Your task to perform on an android device: choose inbox layout in the gmail app Image 0: 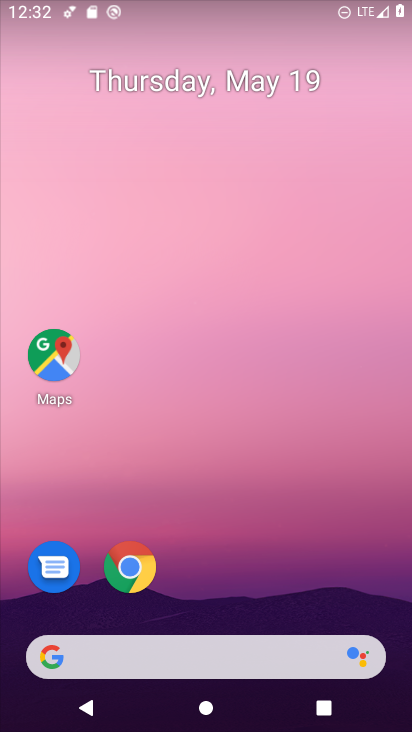
Step 0: drag from (271, 498) to (287, 1)
Your task to perform on an android device: choose inbox layout in the gmail app Image 1: 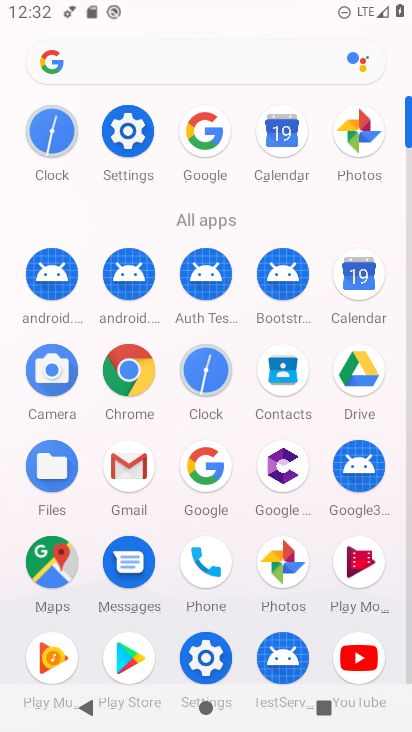
Step 1: click (142, 465)
Your task to perform on an android device: choose inbox layout in the gmail app Image 2: 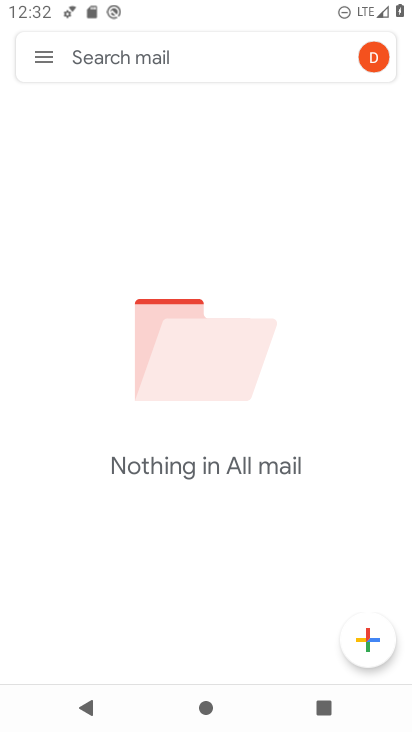
Step 2: click (47, 54)
Your task to perform on an android device: choose inbox layout in the gmail app Image 3: 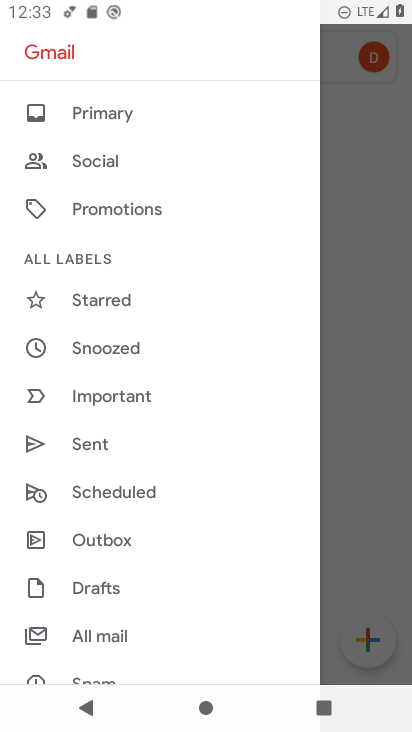
Step 3: drag from (167, 585) to (170, 362)
Your task to perform on an android device: choose inbox layout in the gmail app Image 4: 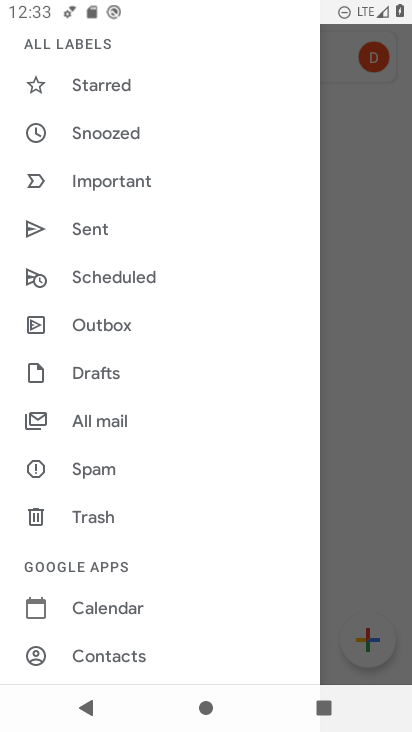
Step 4: drag from (161, 516) to (157, 271)
Your task to perform on an android device: choose inbox layout in the gmail app Image 5: 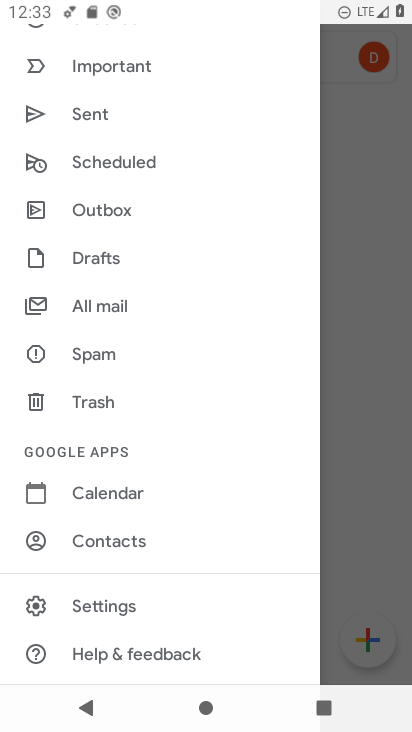
Step 5: click (112, 599)
Your task to perform on an android device: choose inbox layout in the gmail app Image 6: 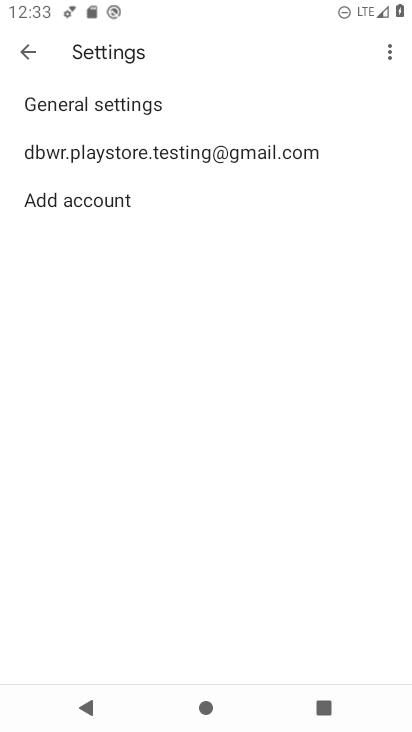
Step 6: click (160, 148)
Your task to perform on an android device: choose inbox layout in the gmail app Image 7: 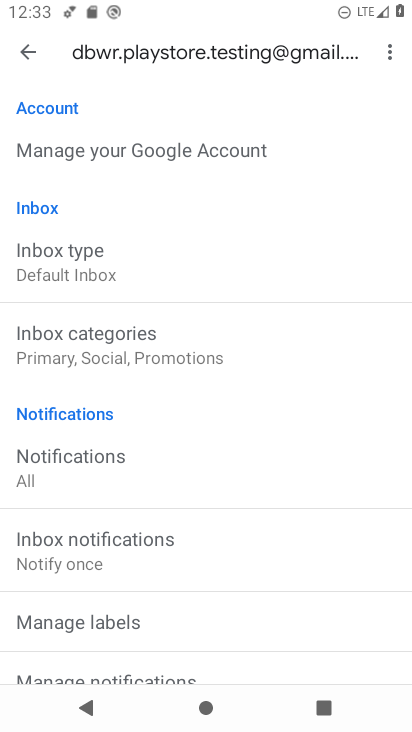
Step 7: click (106, 262)
Your task to perform on an android device: choose inbox layout in the gmail app Image 8: 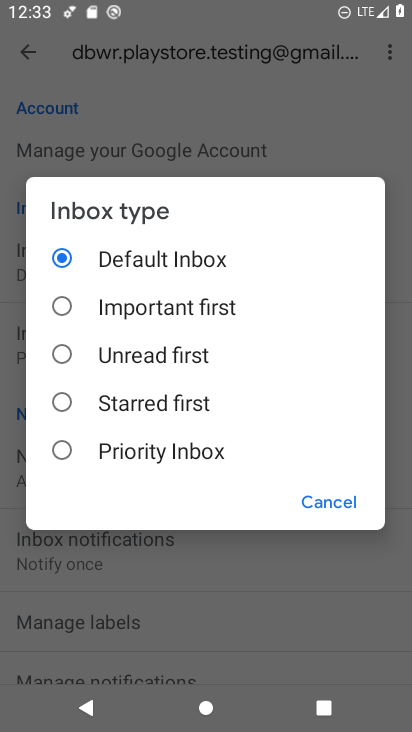
Step 8: click (64, 304)
Your task to perform on an android device: choose inbox layout in the gmail app Image 9: 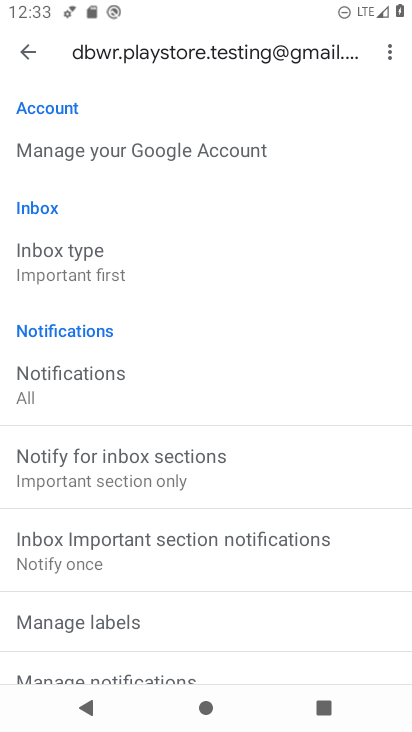
Step 9: task complete